Your task to perform on an android device: turn on location history Image 0: 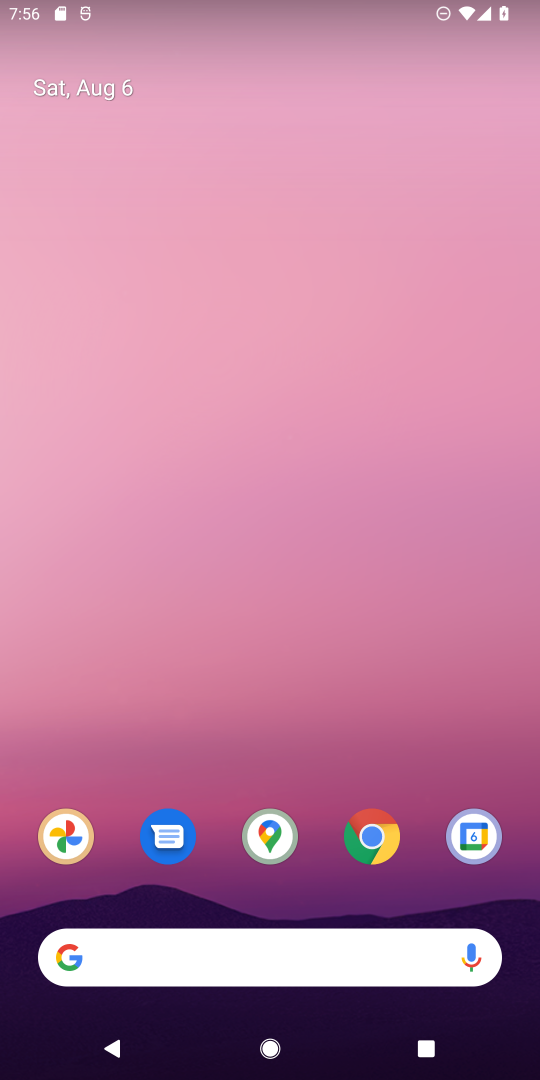
Step 0: drag from (184, 939) to (229, 470)
Your task to perform on an android device: turn on location history Image 1: 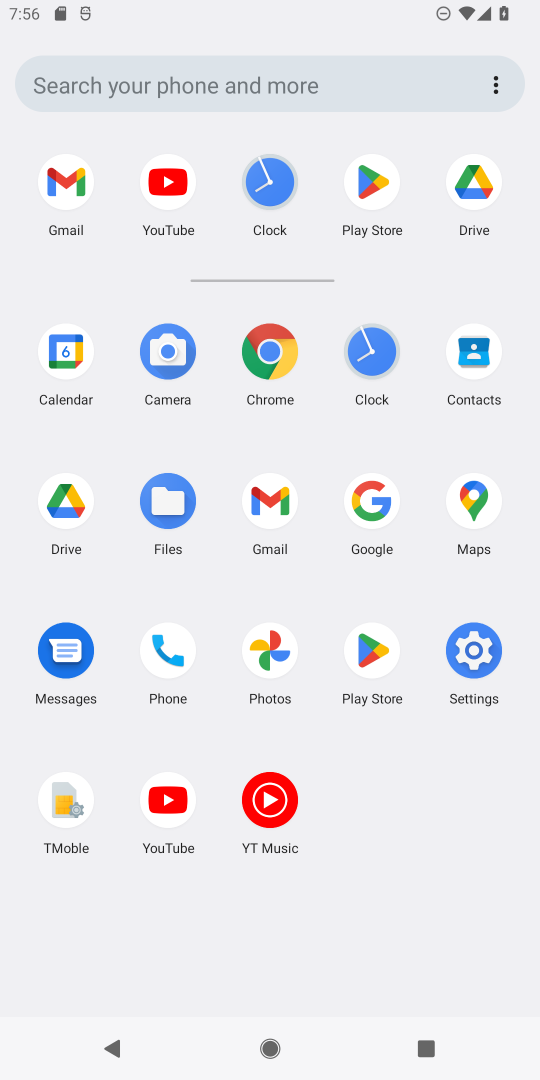
Step 1: click (457, 664)
Your task to perform on an android device: turn on location history Image 2: 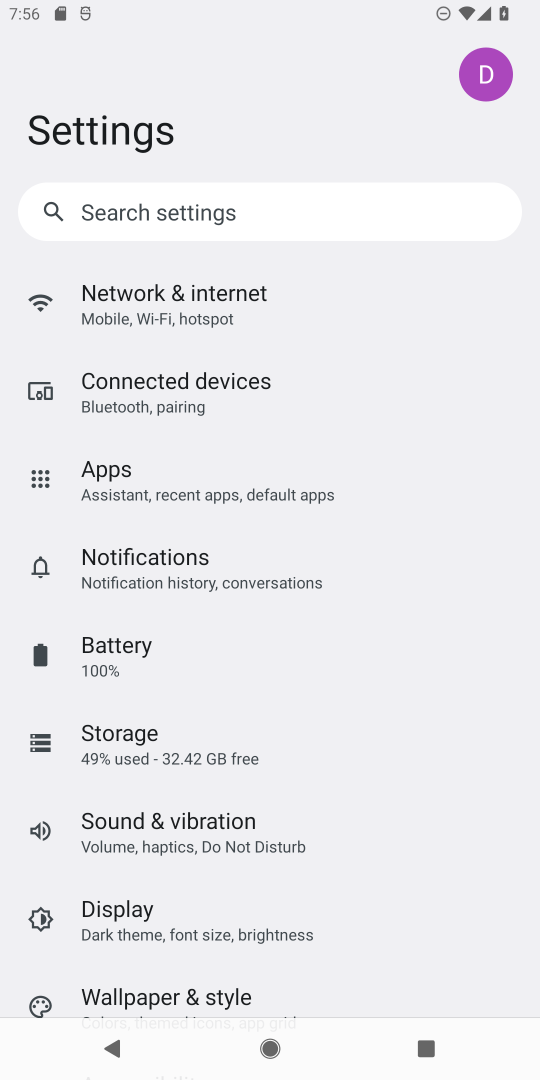
Step 2: drag from (145, 957) to (209, 548)
Your task to perform on an android device: turn on location history Image 3: 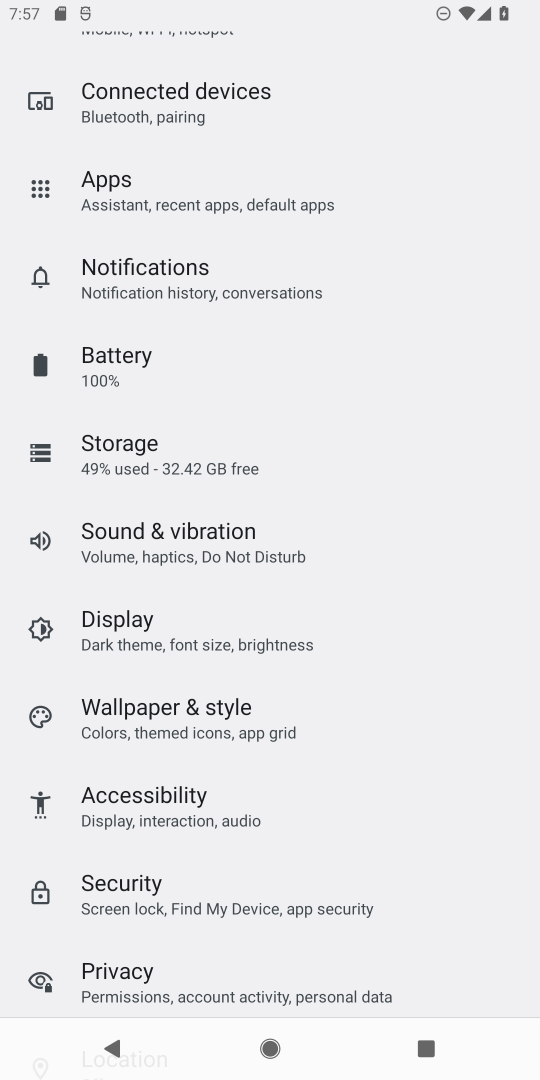
Step 3: drag from (110, 962) to (116, 652)
Your task to perform on an android device: turn on location history Image 4: 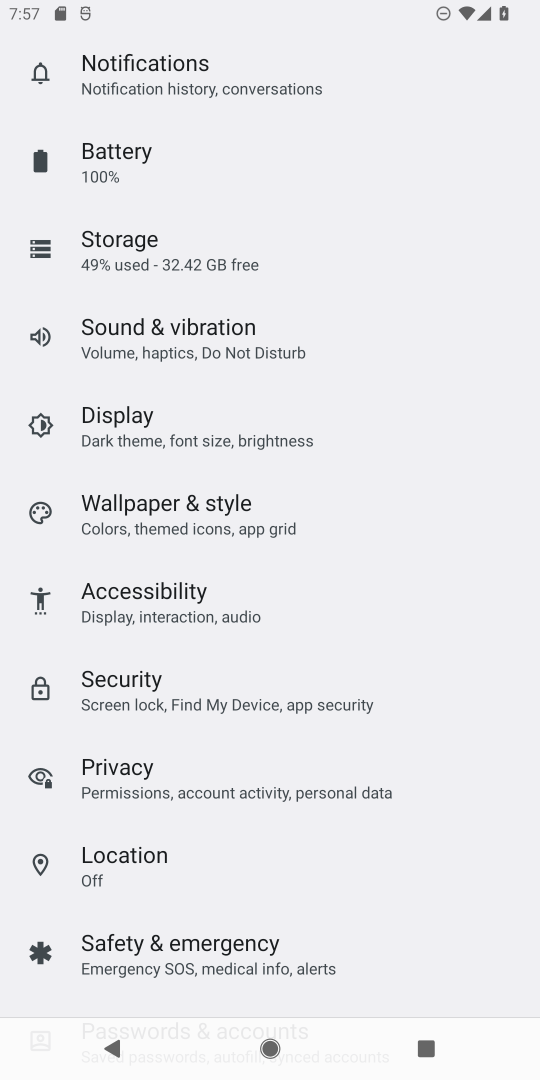
Step 4: click (138, 855)
Your task to perform on an android device: turn on location history Image 5: 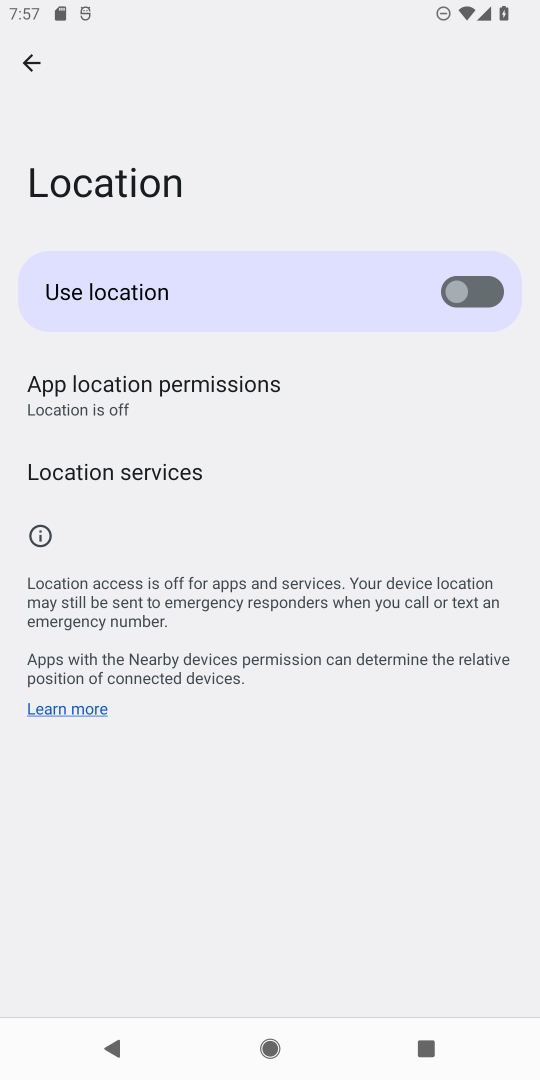
Step 5: click (474, 292)
Your task to perform on an android device: turn on location history Image 6: 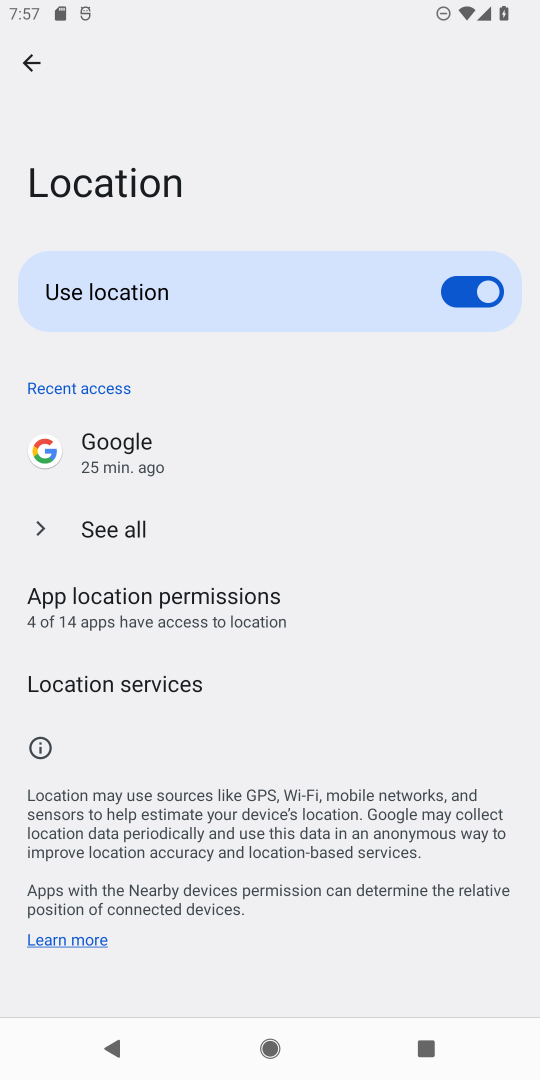
Step 6: click (130, 677)
Your task to perform on an android device: turn on location history Image 7: 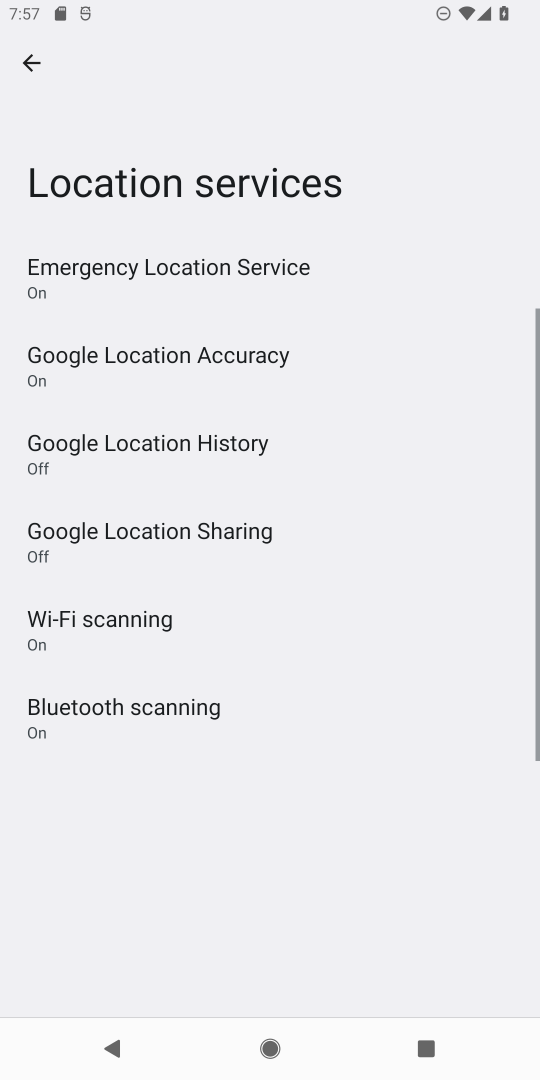
Step 7: click (167, 440)
Your task to perform on an android device: turn on location history Image 8: 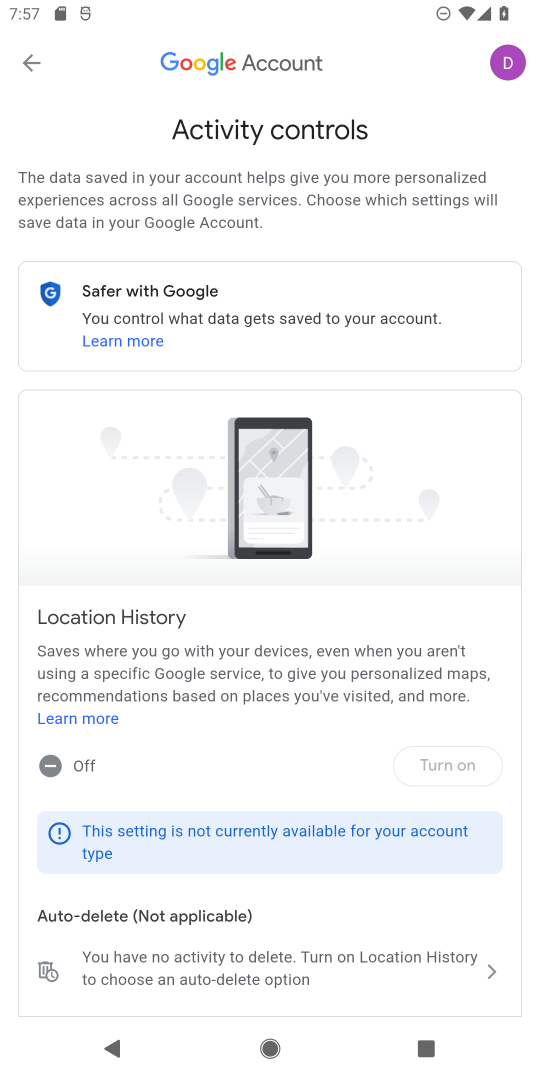
Step 8: click (428, 774)
Your task to perform on an android device: turn on location history Image 9: 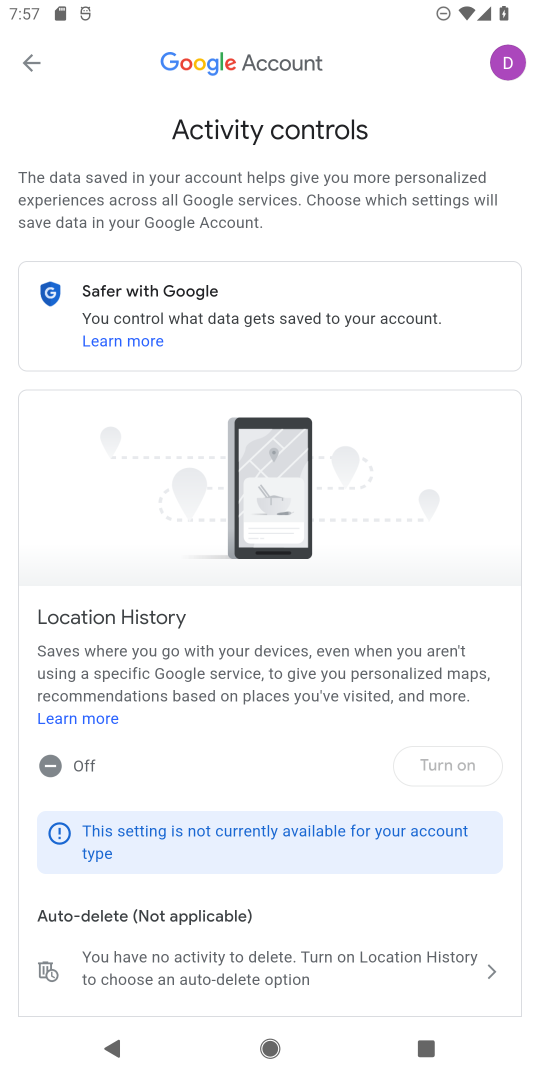
Step 9: task complete